Your task to perform on an android device: toggle wifi Image 0: 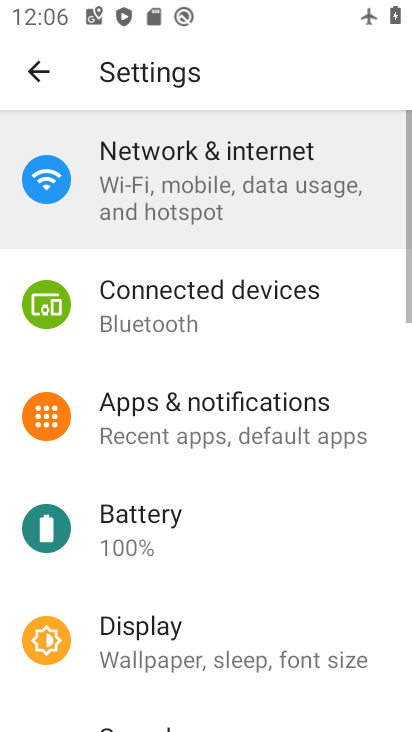
Step 0: click (250, 178)
Your task to perform on an android device: toggle wifi Image 1: 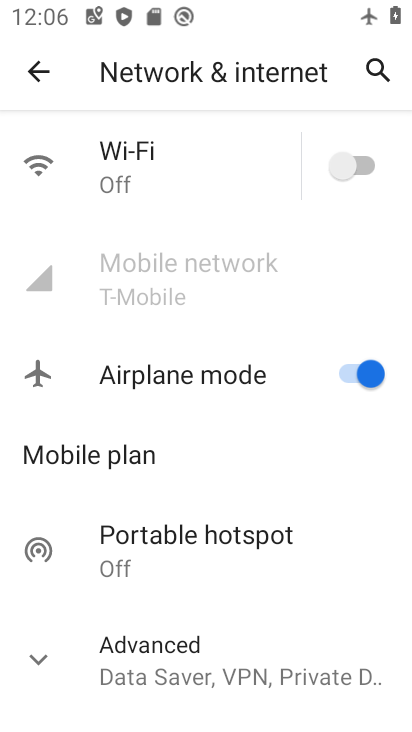
Step 1: click (359, 154)
Your task to perform on an android device: toggle wifi Image 2: 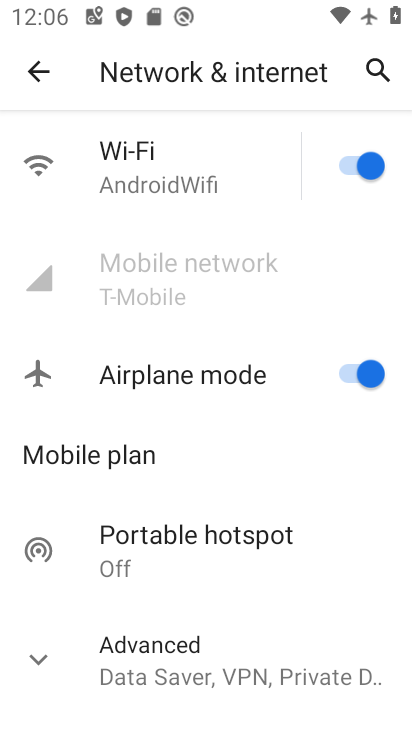
Step 2: task complete